Your task to perform on an android device: Search for seafood restaurants on Google Maps Image 0: 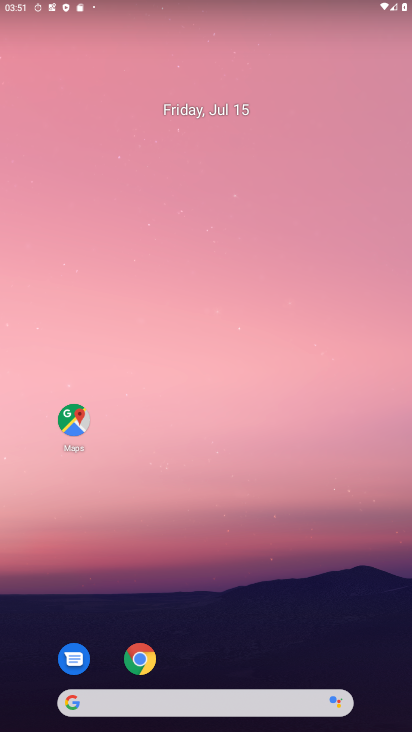
Step 0: click (76, 419)
Your task to perform on an android device: Search for seafood restaurants on Google Maps Image 1: 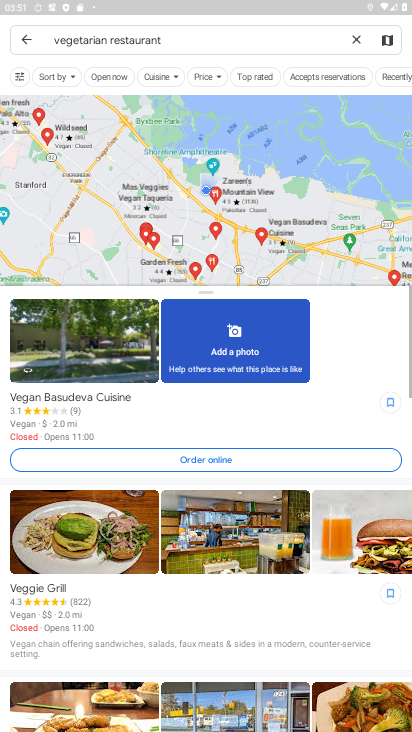
Step 1: click (352, 39)
Your task to perform on an android device: Search for seafood restaurants on Google Maps Image 2: 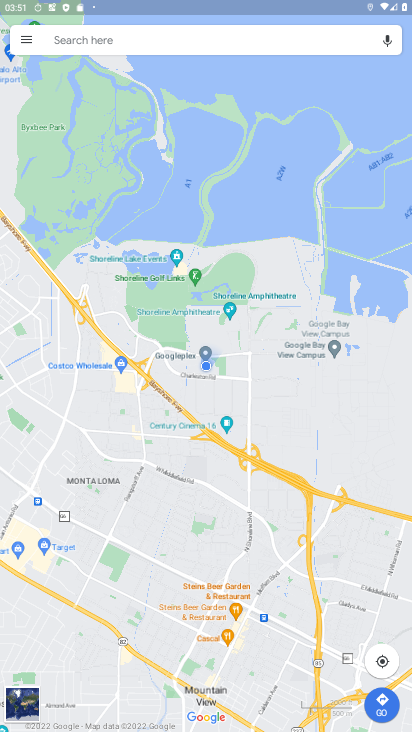
Step 2: click (230, 40)
Your task to perform on an android device: Search for seafood restaurants on Google Maps Image 3: 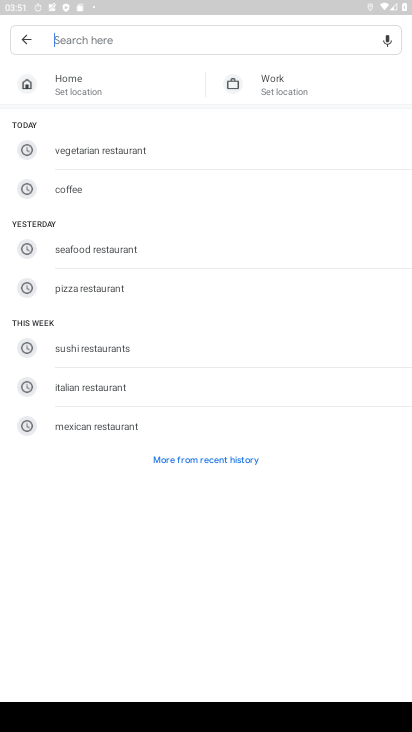
Step 3: type "seafood restaurants"
Your task to perform on an android device: Search for seafood restaurants on Google Maps Image 4: 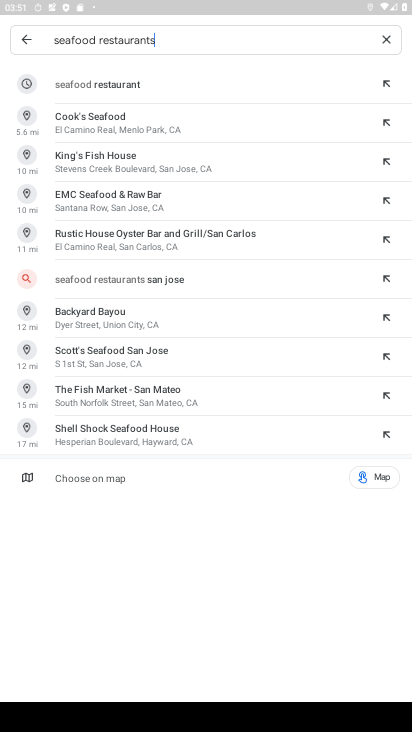
Step 4: click (101, 88)
Your task to perform on an android device: Search for seafood restaurants on Google Maps Image 5: 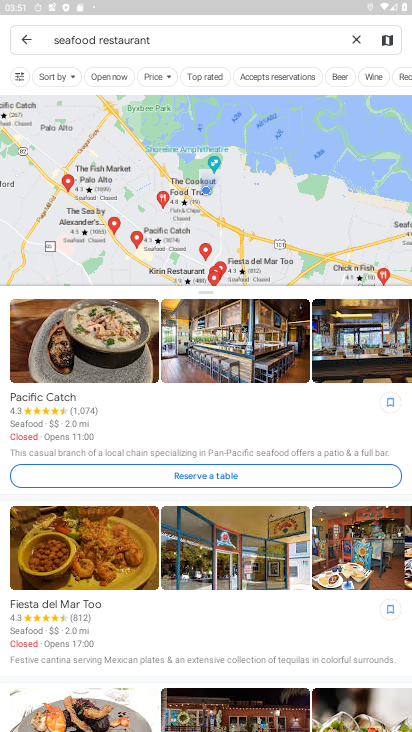
Step 5: task complete